Your task to perform on an android device: see creations saved in the google photos Image 0: 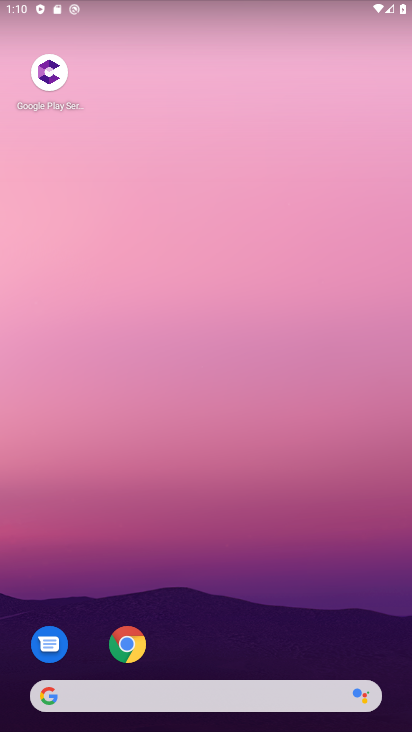
Step 0: drag from (204, 567) to (204, 282)
Your task to perform on an android device: see creations saved in the google photos Image 1: 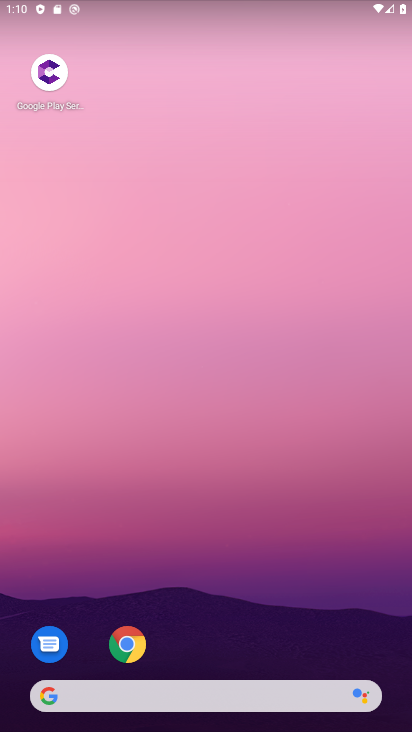
Step 1: drag from (192, 632) to (228, 195)
Your task to perform on an android device: see creations saved in the google photos Image 2: 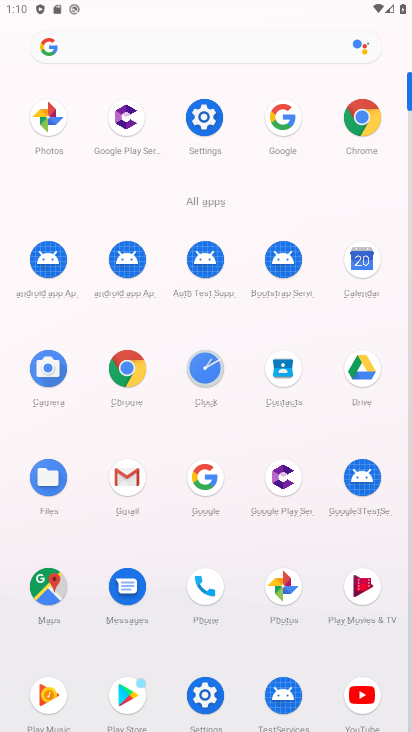
Step 2: click (272, 600)
Your task to perform on an android device: see creations saved in the google photos Image 3: 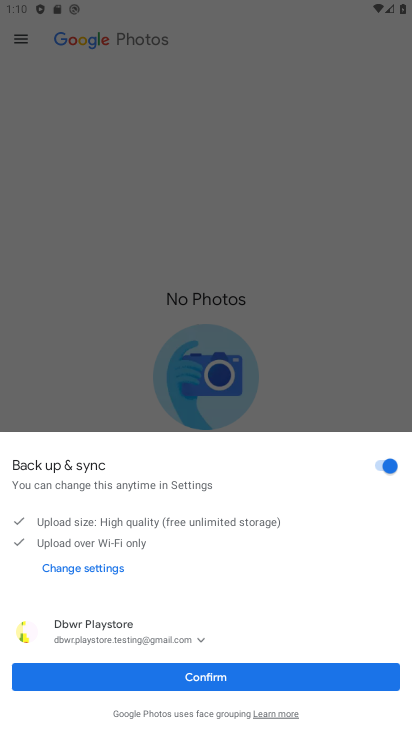
Step 3: click (311, 672)
Your task to perform on an android device: see creations saved in the google photos Image 4: 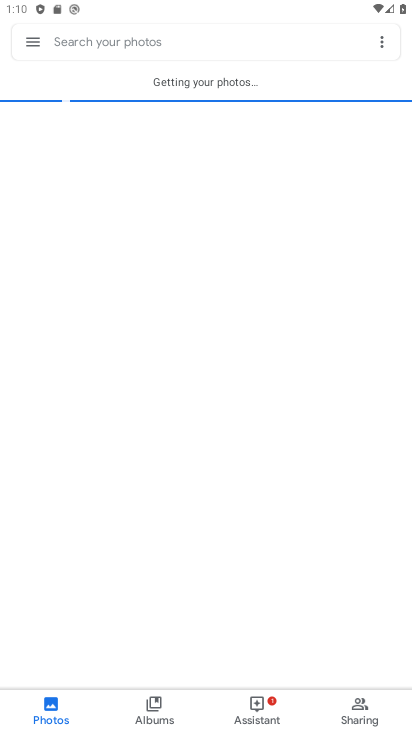
Step 4: click (90, 44)
Your task to perform on an android device: see creations saved in the google photos Image 5: 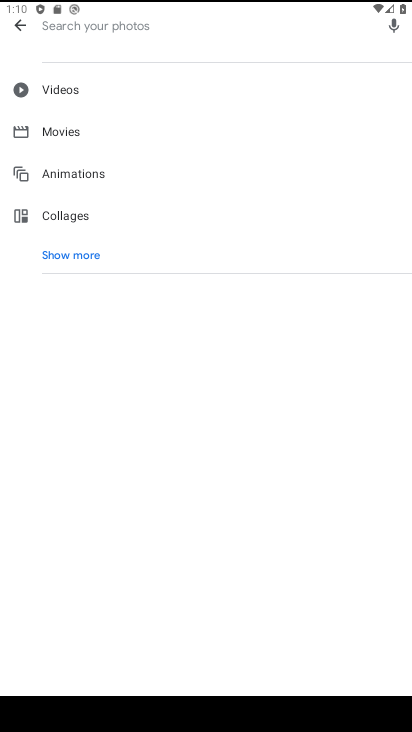
Step 5: click (79, 250)
Your task to perform on an android device: see creations saved in the google photos Image 6: 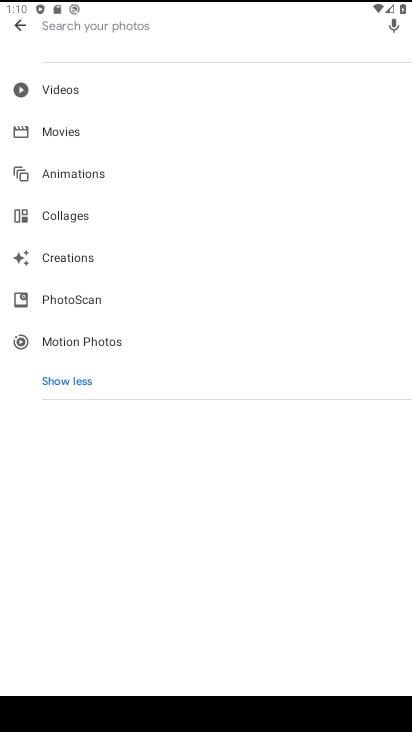
Step 6: click (87, 270)
Your task to perform on an android device: see creations saved in the google photos Image 7: 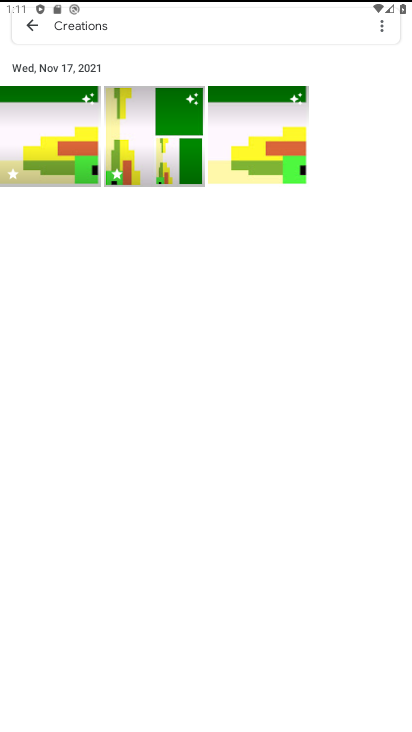
Step 7: task complete